Your task to perform on an android device: open app "ZOOM Cloud Meetings" Image 0: 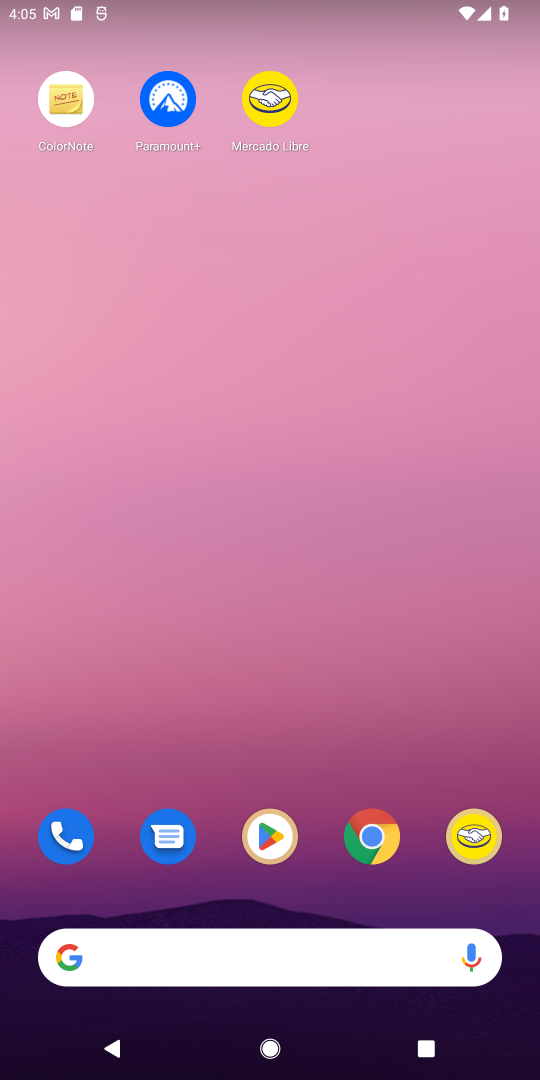
Step 0: drag from (271, 779) to (229, 196)
Your task to perform on an android device: open app "ZOOM Cloud Meetings" Image 1: 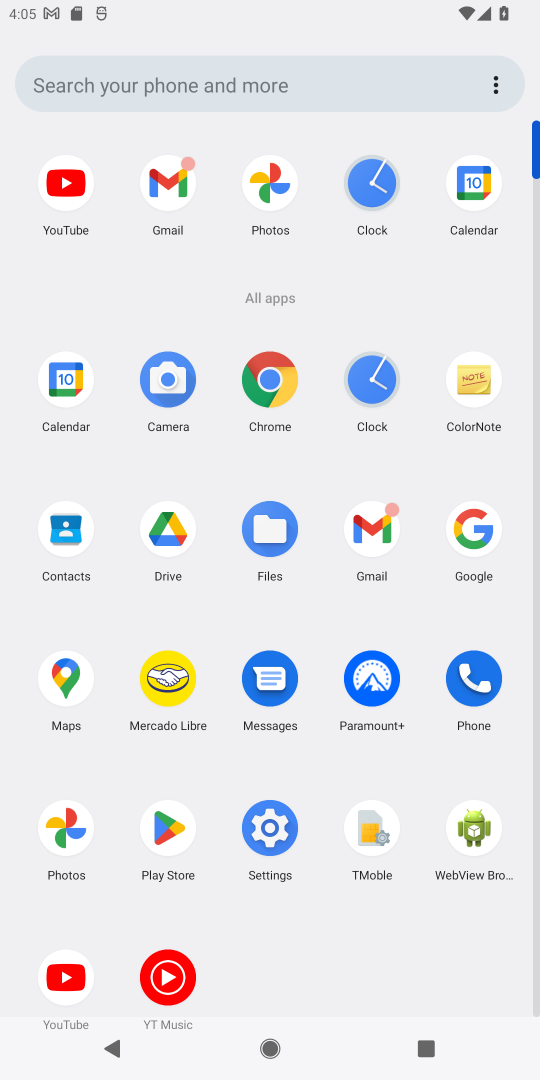
Step 1: click (155, 829)
Your task to perform on an android device: open app "ZOOM Cloud Meetings" Image 2: 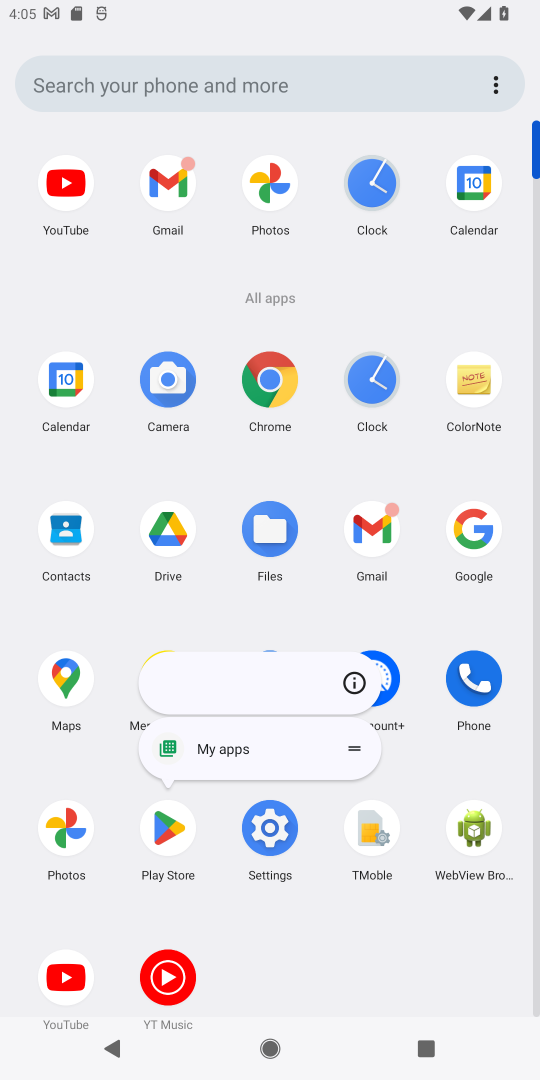
Step 2: click (170, 823)
Your task to perform on an android device: open app "ZOOM Cloud Meetings" Image 3: 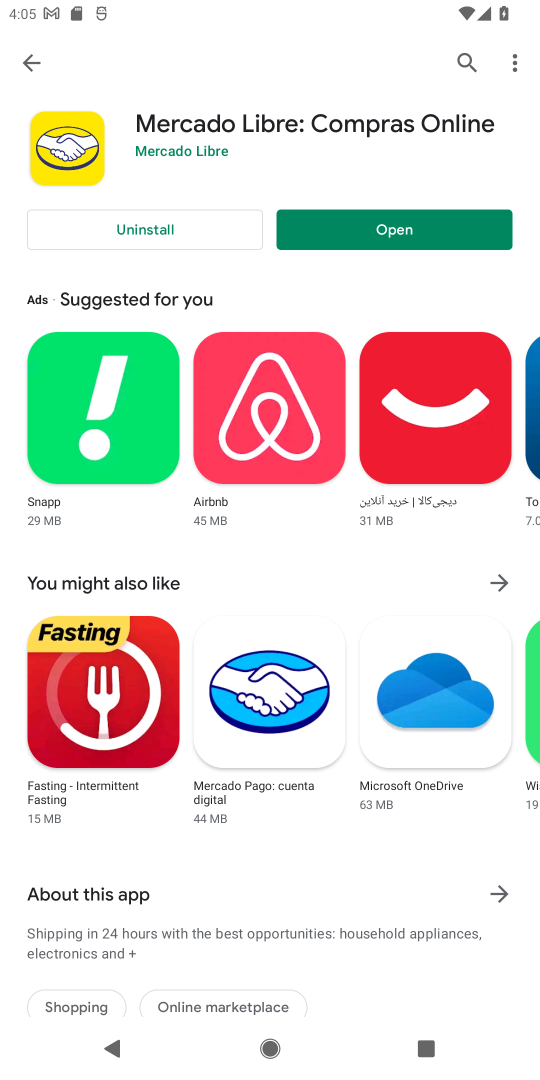
Step 3: click (28, 63)
Your task to perform on an android device: open app "ZOOM Cloud Meetings" Image 4: 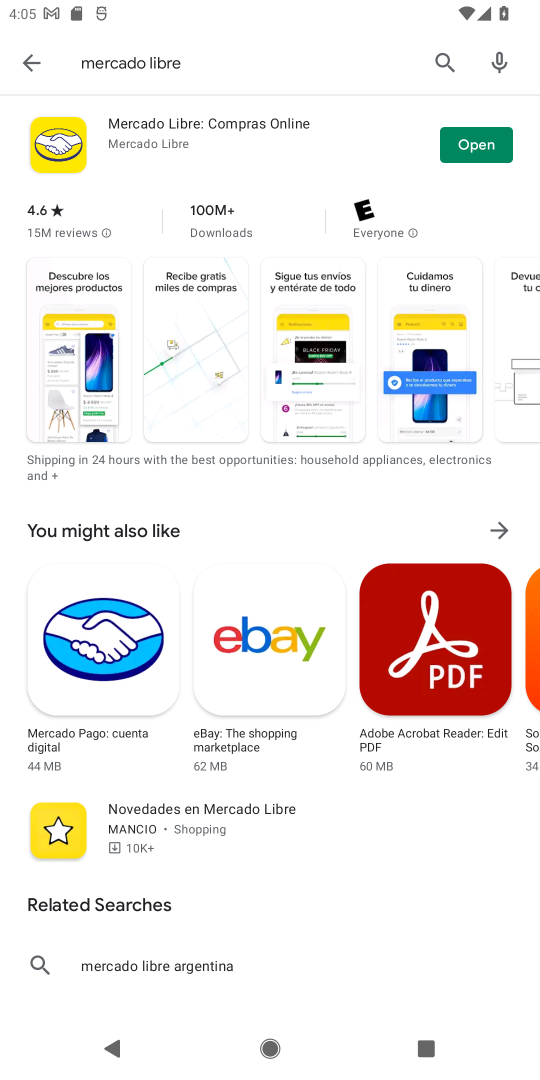
Step 4: click (33, 65)
Your task to perform on an android device: open app "ZOOM Cloud Meetings" Image 5: 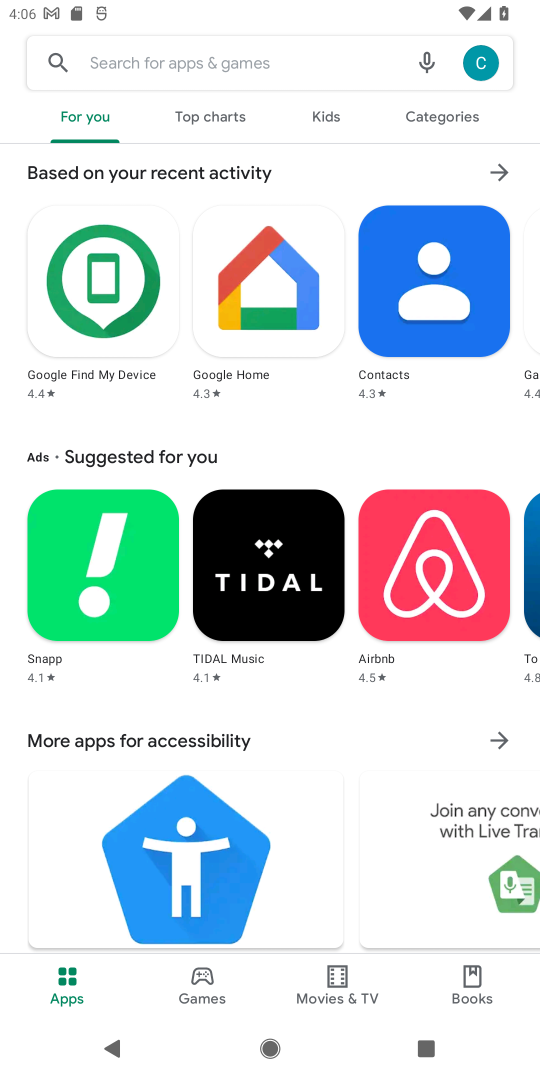
Step 5: click (249, 46)
Your task to perform on an android device: open app "ZOOM Cloud Meetings" Image 6: 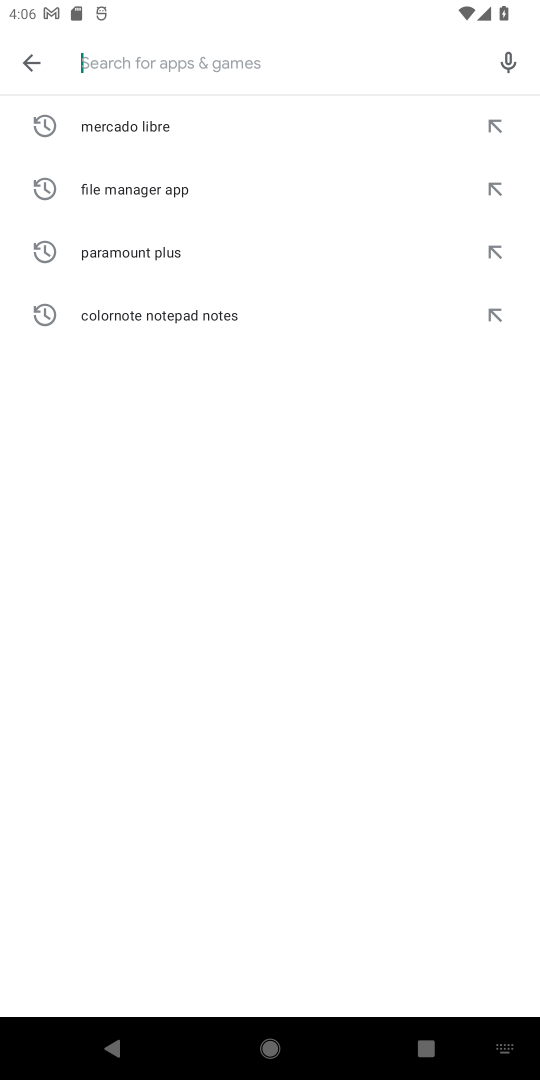
Step 6: type "ZOOM Cloud Meetings "
Your task to perform on an android device: open app "ZOOM Cloud Meetings" Image 7: 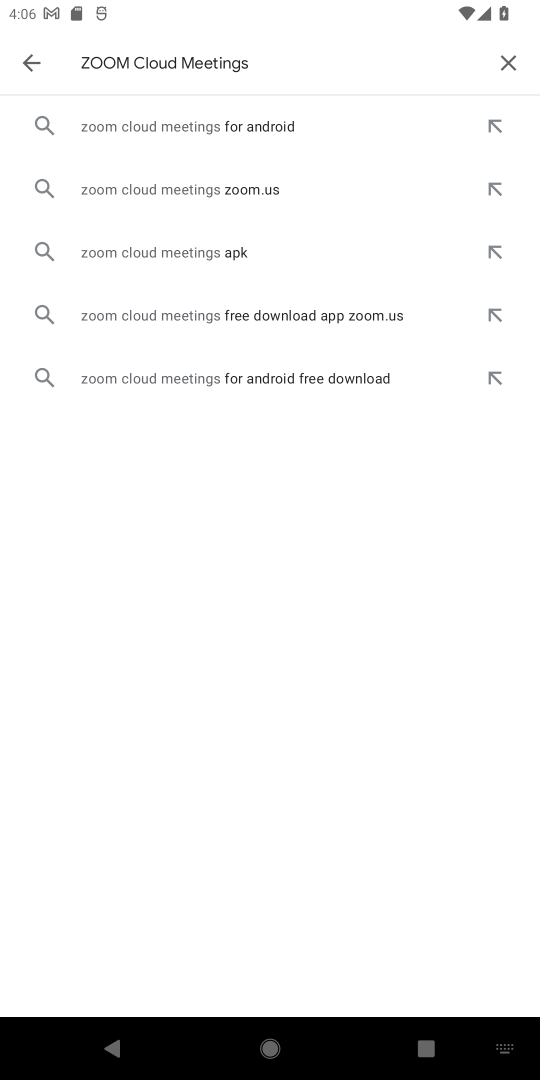
Step 7: click (249, 127)
Your task to perform on an android device: open app "ZOOM Cloud Meetings" Image 8: 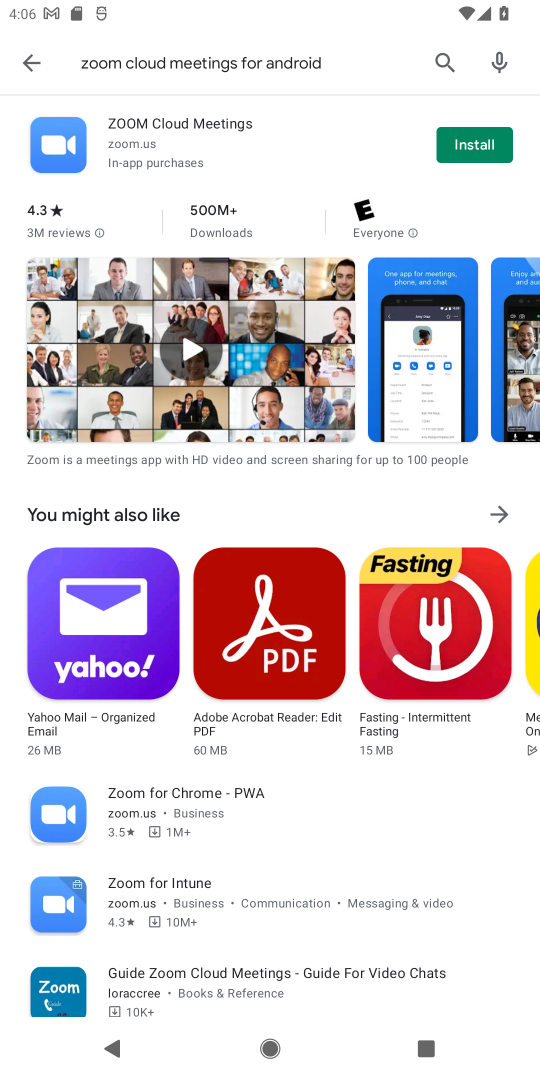
Step 8: click (476, 145)
Your task to perform on an android device: open app "ZOOM Cloud Meetings" Image 9: 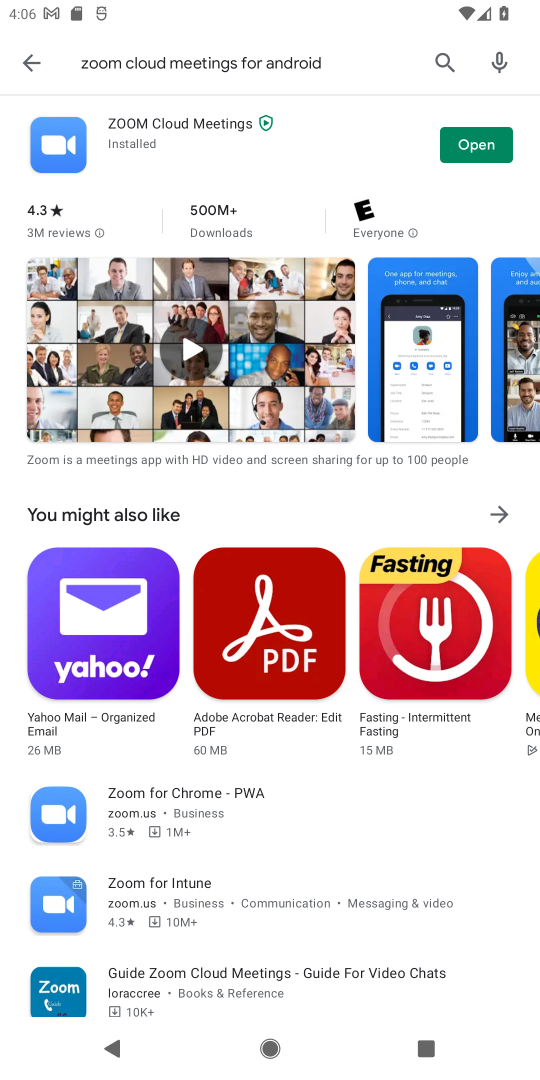
Step 9: click (492, 140)
Your task to perform on an android device: open app "ZOOM Cloud Meetings" Image 10: 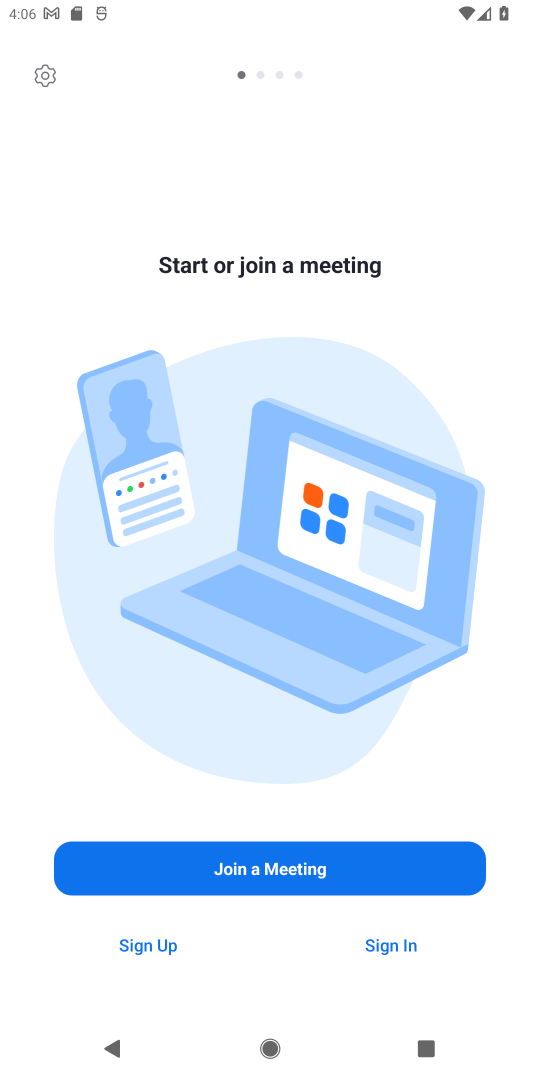
Step 10: task complete